Your task to perform on an android device: Show me popular videos on Youtube Image 0: 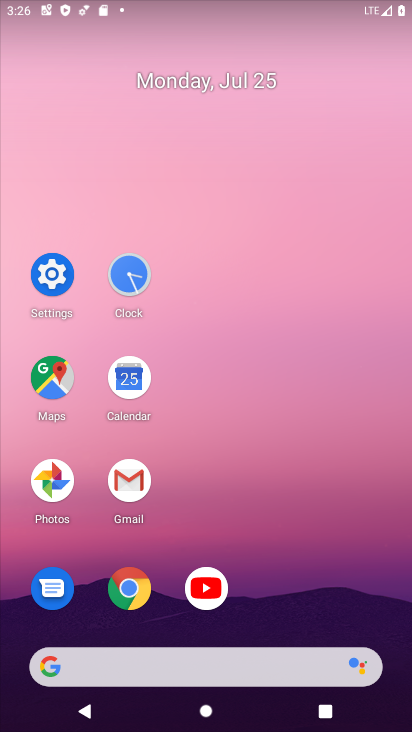
Step 0: click (197, 46)
Your task to perform on an android device: Show me popular videos on Youtube Image 1: 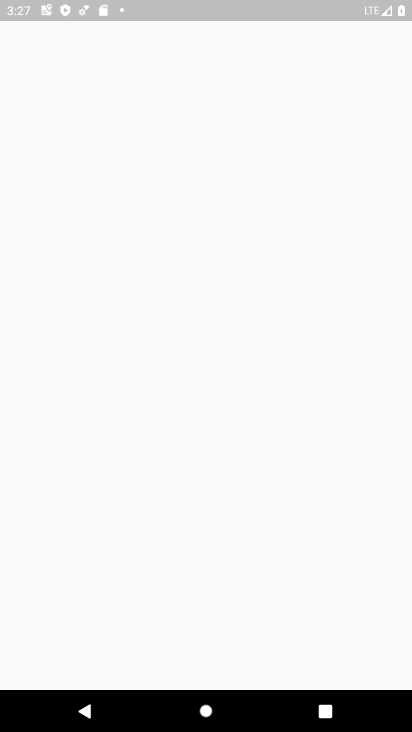
Step 1: drag from (254, 550) to (198, 163)
Your task to perform on an android device: Show me popular videos on Youtube Image 2: 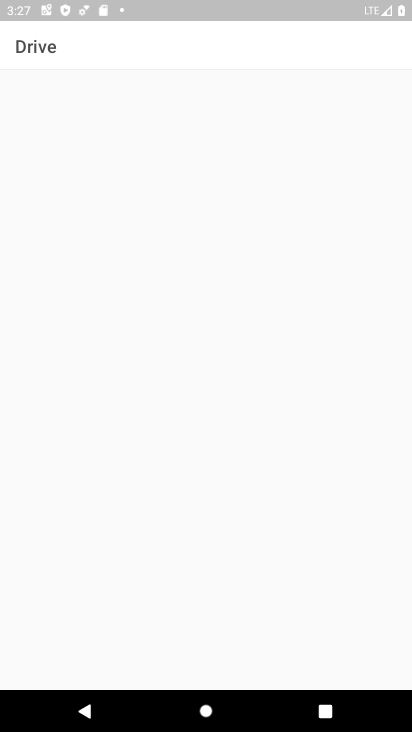
Step 2: press home button
Your task to perform on an android device: Show me popular videos on Youtube Image 3: 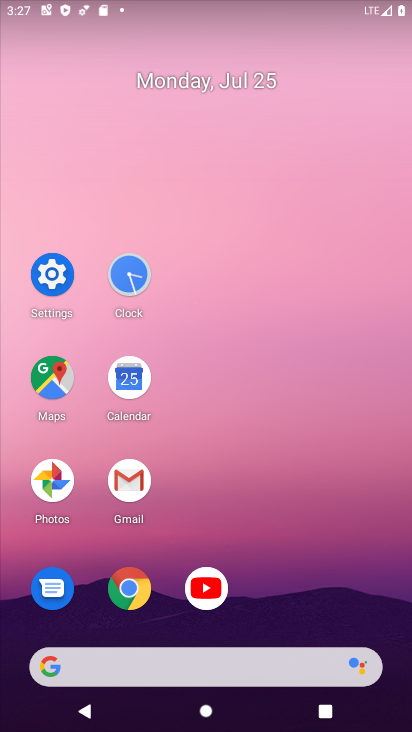
Step 3: click (205, 583)
Your task to perform on an android device: Show me popular videos on Youtube Image 4: 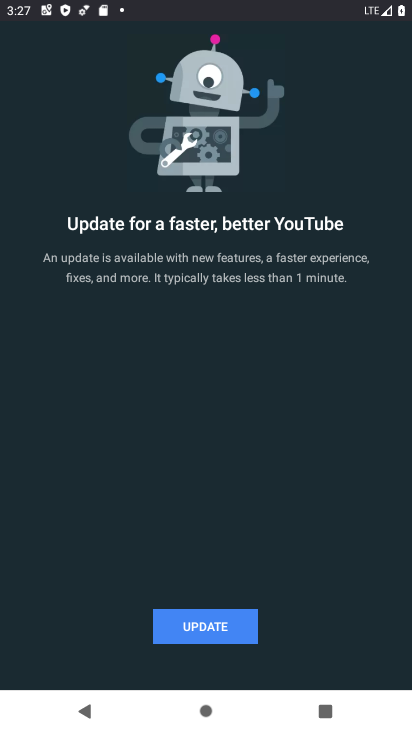
Step 4: click (200, 623)
Your task to perform on an android device: Show me popular videos on Youtube Image 5: 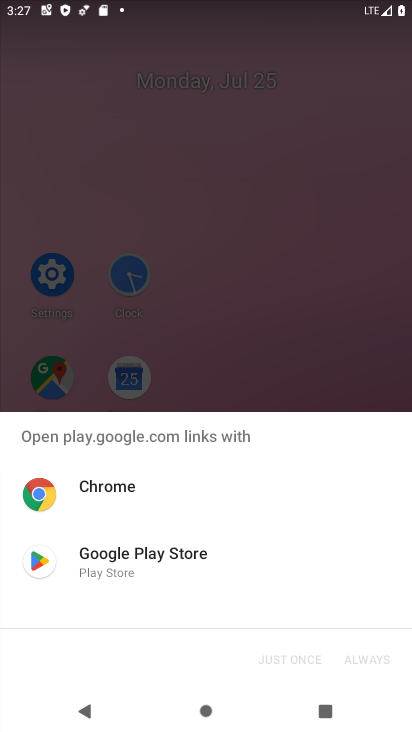
Step 5: click (107, 542)
Your task to perform on an android device: Show me popular videos on Youtube Image 6: 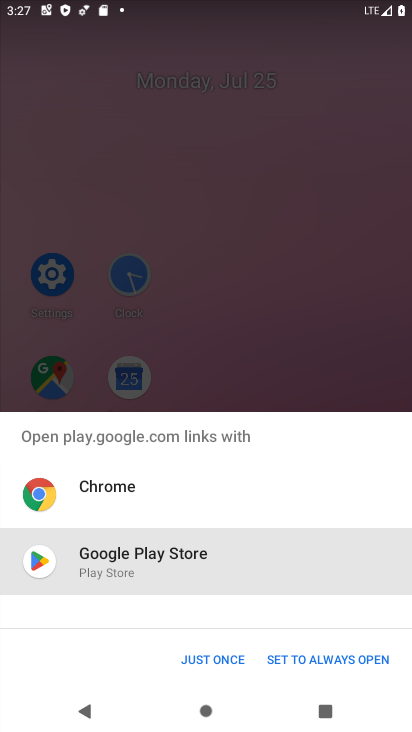
Step 6: click (209, 664)
Your task to perform on an android device: Show me popular videos on Youtube Image 7: 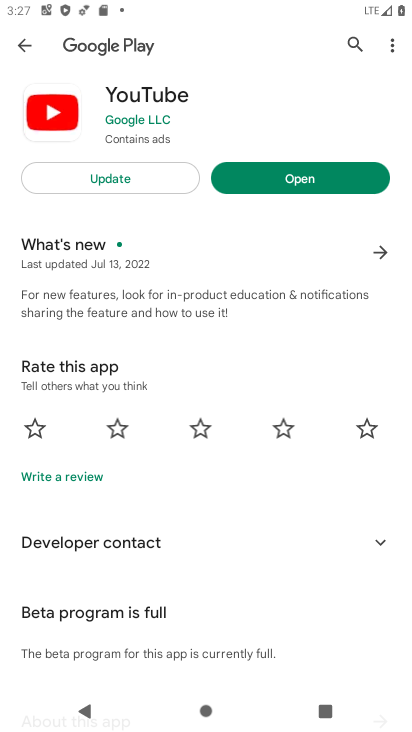
Step 7: click (118, 185)
Your task to perform on an android device: Show me popular videos on Youtube Image 8: 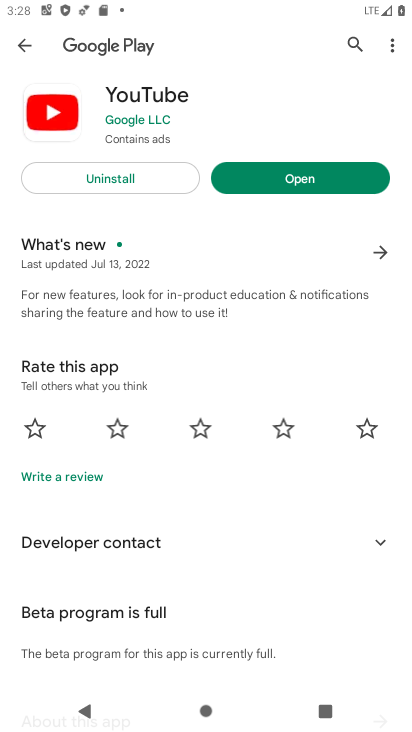
Step 8: click (314, 177)
Your task to perform on an android device: Show me popular videos on Youtube Image 9: 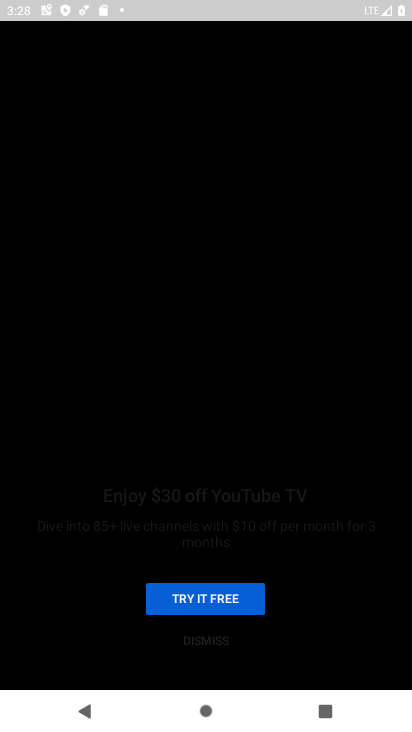
Step 9: click (120, 663)
Your task to perform on an android device: Show me popular videos on Youtube Image 10: 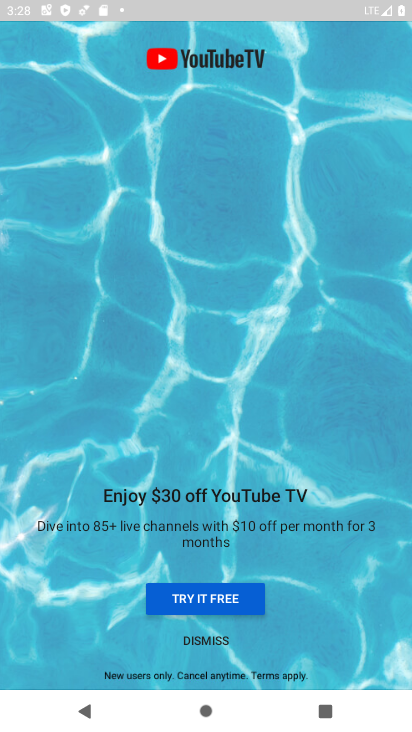
Step 10: task complete